Your task to perform on an android device: Empty the shopping cart on target.com. Search for beats solo 3 on target.com, select the first entry, and add it to the cart. Image 0: 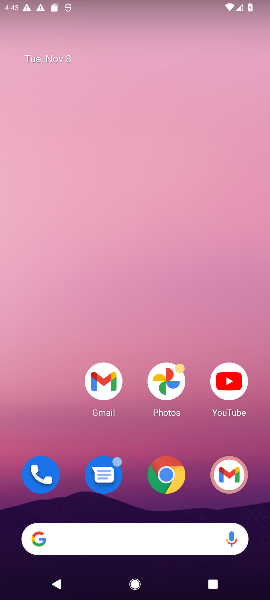
Step 0: drag from (130, 545) to (144, 140)
Your task to perform on an android device: Empty the shopping cart on target.com. Search for beats solo 3 on target.com, select the first entry, and add it to the cart. Image 1: 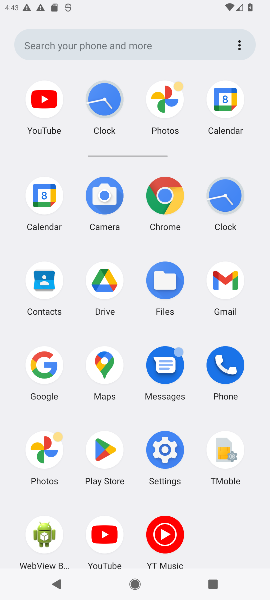
Step 1: click (48, 358)
Your task to perform on an android device: Empty the shopping cart on target.com. Search for beats solo 3 on target.com, select the first entry, and add it to the cart. Image 2: 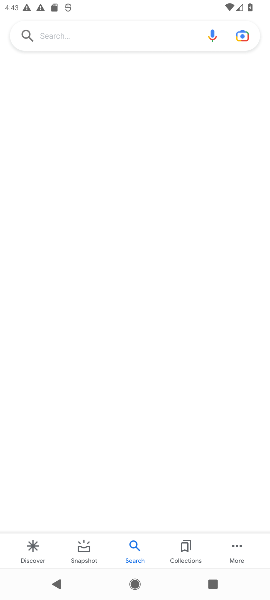
Step 2: click (79, 34)
Your task to perform on an android device: Empty the shopping cart on target.com. Search for beats solo 3 on target.com, select the first entry, and add it to the cart. Image 3: 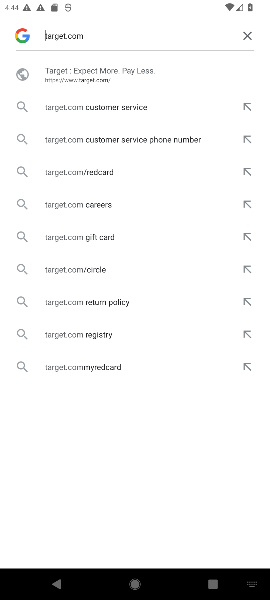
Step 3: type "target "
Your task to perform on an android device: Empty the shopping cart on target.com. Search for beats solo 3 on target.com, select the first entry, and add it to the cart. Image 4: 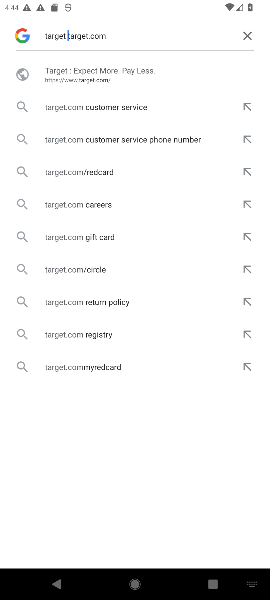
Step 4: click (108, 68)
Your task to perform on an android device: Empty the shopping cart on target.com. Search for beats solo 3 on target.com, select the first entry, and add it to the cart. Image 5: 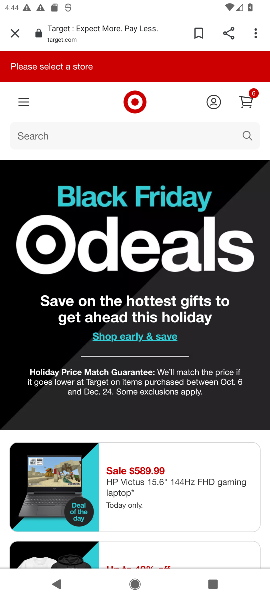
Step 5: click (252, 100)
Your task to perform on an android device: Empty the shopping cart on target.com. Search for beats solo 3 on target.com, select the first entry, and add it to the cart. Image 6: 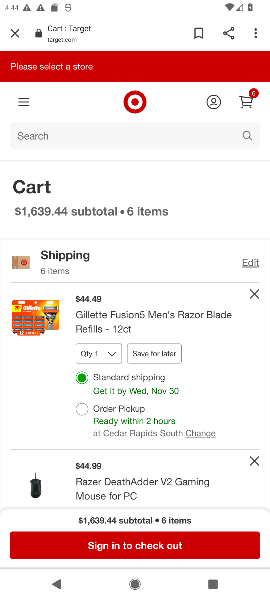
Step 6: click (255, 291)
Your task to perform on an android device: Empty the shopping cart on target.com. Search for beats solo 3 on target.com, select the first entry, and add it to the cart. Image 7: 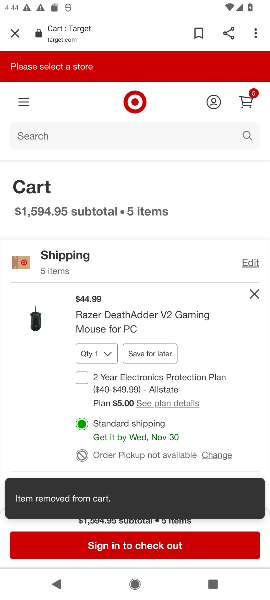
Step 7: click (255, 291)
Your task to perform on an android device: Empty the shopping cart on target.com. Search for beats solo 3 on target.com, select the first entry, and add it to the cart. Image 8: 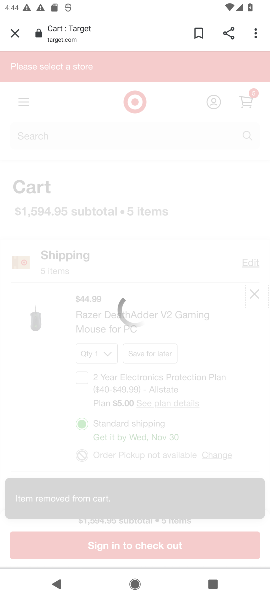
Step 8: click (255, 291)
Your task to perform on an android device: Empty the shopping cart on target.com. Search for beats solo 3 on target.com, select the first entry, and add it to the cart. Image 9: 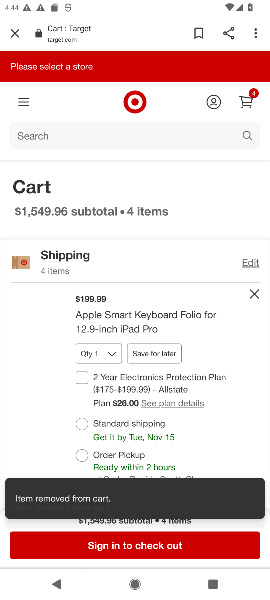
Step 9: click (255, 291)
Your task to perform on an android device: Empty the shopping cart on target.com. Search for beats solo 3 on target.com, select the first entry, and add it to the cart. Image 10: 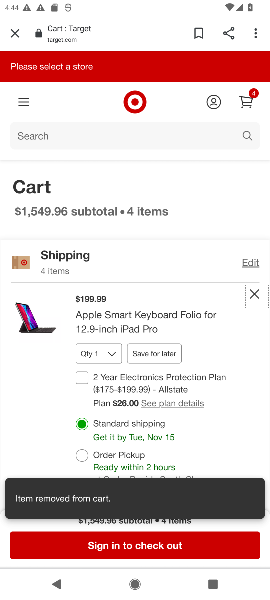
Step 10: click (255, 291)
Your task to perform on an android device: Empty the shopping cart on target.com. Search for beats solo 3 on target.com, select the first entry, and add it to the cart. Image 11: 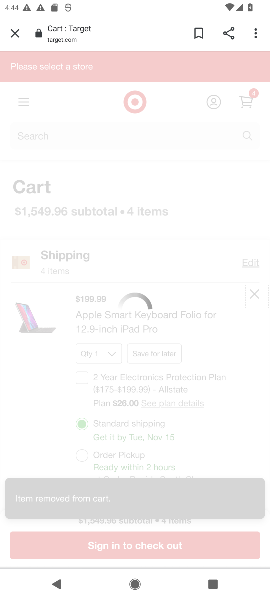
Step 11: click (255, 291)
Your task to perform on an android device: Empty the shopping cart on target.com. Search for beats solo 3 on target.com, select the first entry, and add it to the cart. Image 12: 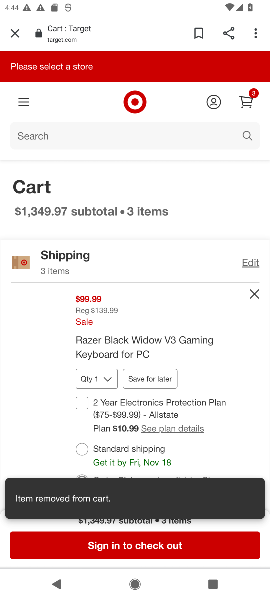
Step 12: click (255, 291)
Your task to perform on an android device: Empty the shopping cart on target.com. Search for beats solo 3 on target.com, select the first entry, and add it to the cart. Image 13: 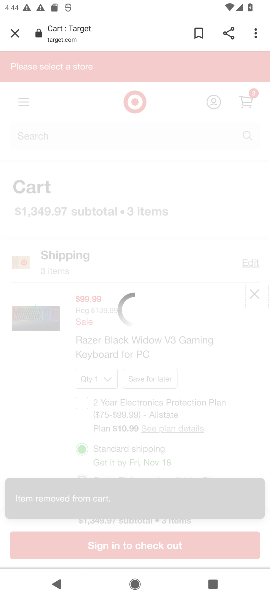
Step 13: click (255, 291)
Your task to perform on an android device: Empty the shopping cart on target.com. Search for beats solo 3 on target.com, select the first entry, and add it to the cart. Image 14: 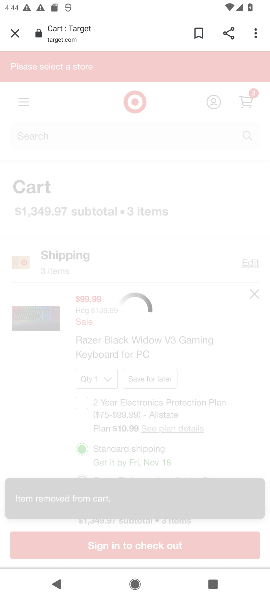
Step 14: click (255, 291)
Your task to perform on an android device: Empty the shopping cart on target.com. Search for beats solo 3 on target.com, select the first entry, and add it to the cart. Image 15: 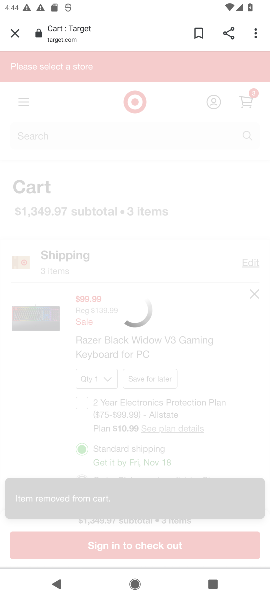
Step 15: click (255, 291)
Your task to perform on an android device: Empty the shopping cart on target.com. Search for beats solo 3 on target.com, select the first entry, and add it to the cart. Image 16: 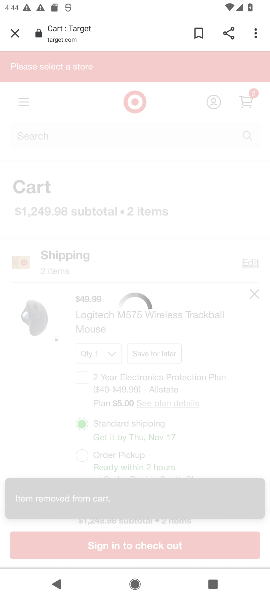
Step 16: click (255, 291)
Your task to perform on an android device: Empty the shopping cart on target.com. Search for beats solo 3 on target.com, select the first entry, and add it to the cart. Image 17: 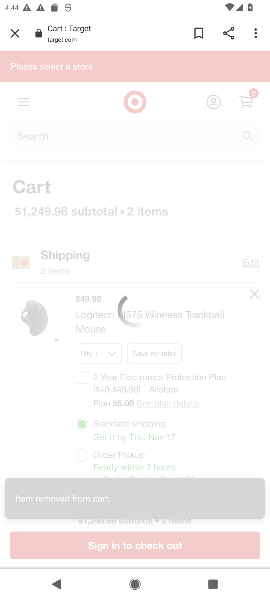
Step 17: click (255, 291)
Your task to perform on an android device: Empty the shopping cart on target.com. Search for beats solo 3 on target.com, select the first entry, and add it to the cart. Image 18: 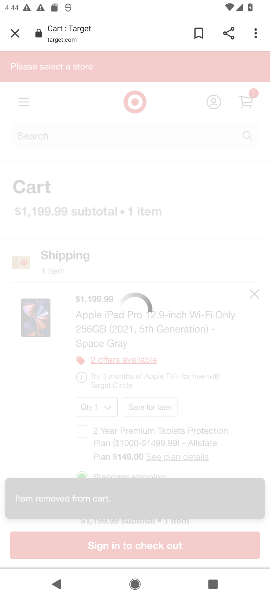
Step 18: click (255, 291)
Your task to perform on an android device: Empty the shopping cart on target.com. Search for beats solo 3 on target.com, select the first entry, and add it to the cart. Image 19: 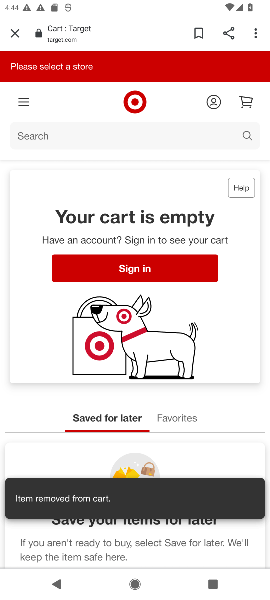
Step 19: click (255, 291)
Your task to perform on an android device: Empty the shopping cart on target.com. Search for beats solo 3 on target.com, select the first entry, and add it to the cart. Image 20: 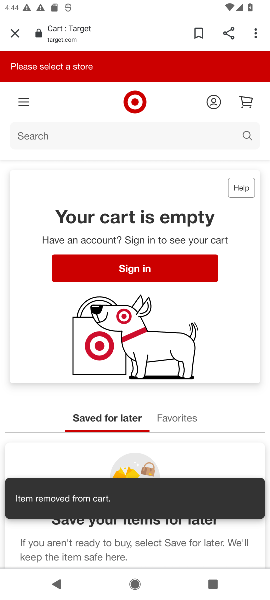
Step 20: task complete